Your task to perform on an android device: toggle data saver in the chrome app Image 0: 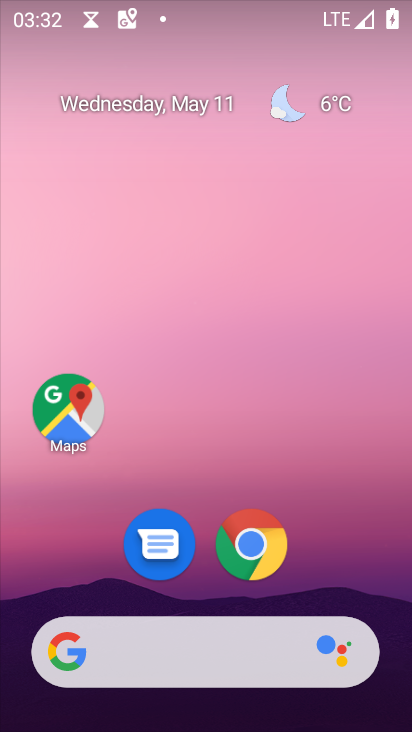
Step 0: click (259, 547)
Your task to perform on an android device: toggle data saver in the chrome app Image 1: 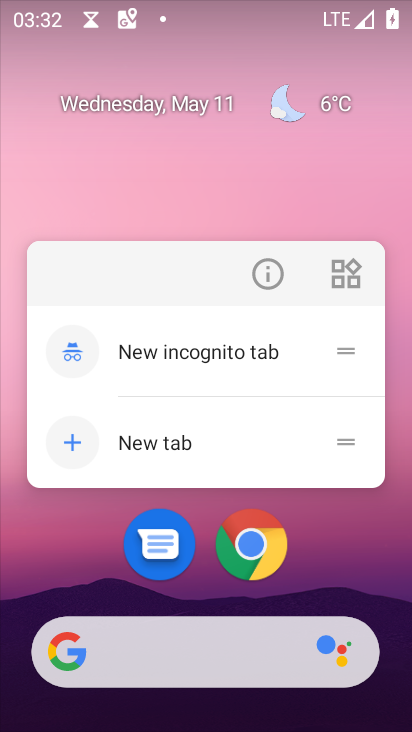
Step 1: click (259, 547)
Your task to perform on an android device: toggle data saver in the chrome app Image 2: 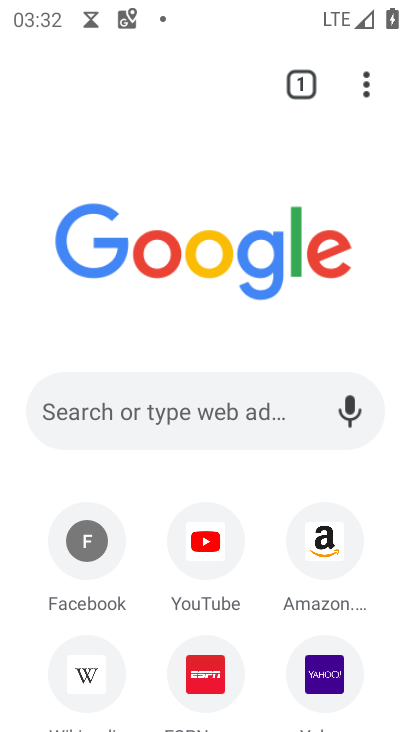
Step 2: click (361, 75)
Your task to perform on an android device: toggle data saver in the chrome app Image 3: 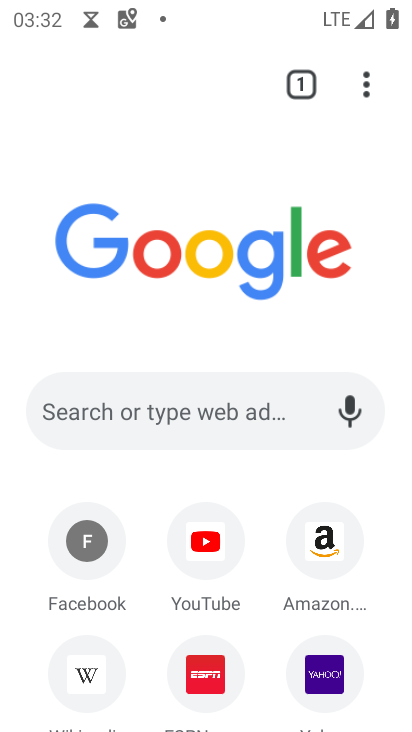
Step 3: click (367, 80)
Your task to perform on an android device: toggle data saver in the chrome app Image 4: 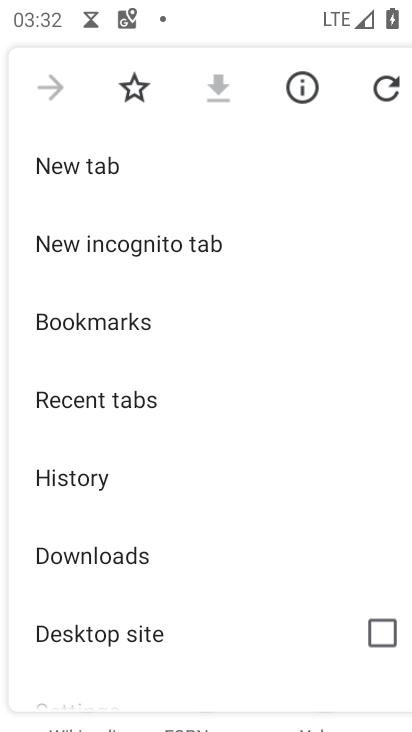
Step 4: drag from (182, 590) to (212, 224)
Your task to perform on an android device: toggle data saver in the chrome app Image 5: 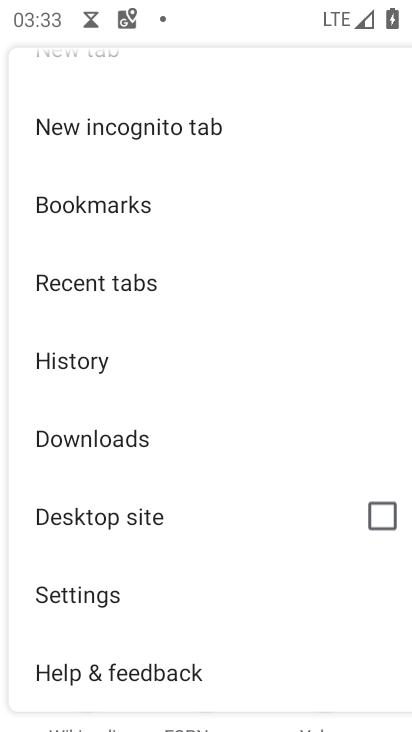
Step 5: click (92, 593)
Your task to perform on an android device: toggle data saver in the chrome app Image 6: 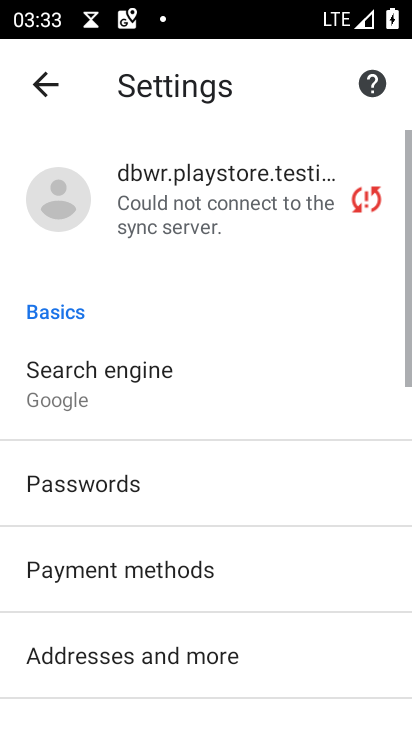
Step 6: drag from (192, 614) to (262, 270)
Your task to perform on an android device: toggle data saver in the chrome app Image 7: 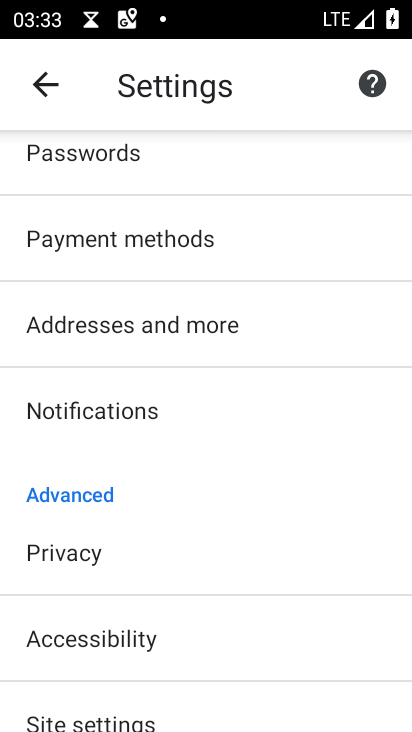
Step 7: drag from (238, 642) to (308, 288)
Your task to perform on an android device: toggle data saver in the chrome app Image 8: 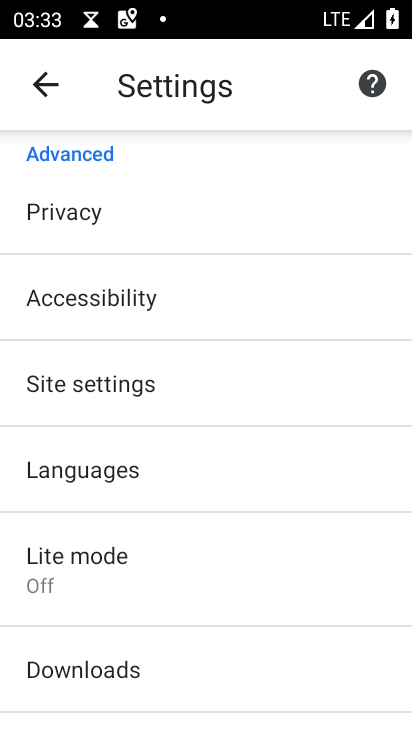
Step 8: click (211, 584)
Your task to perform on an android device: toggle data saver in the chrome app Image 9: 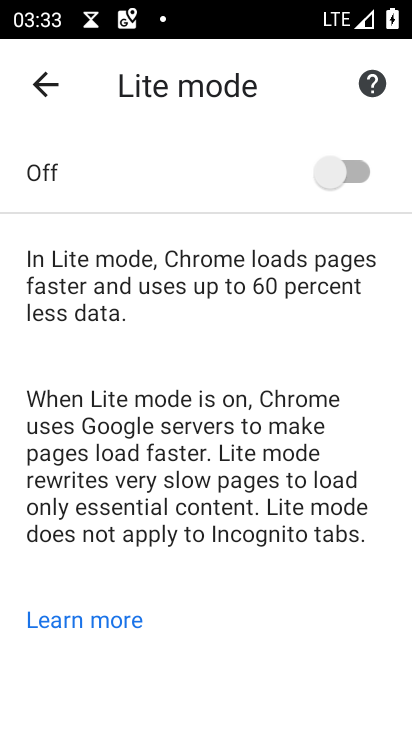
Step 9: click (353, 184)
Your task to perform on an android device: toggle data saver in the chrome app Image 10: 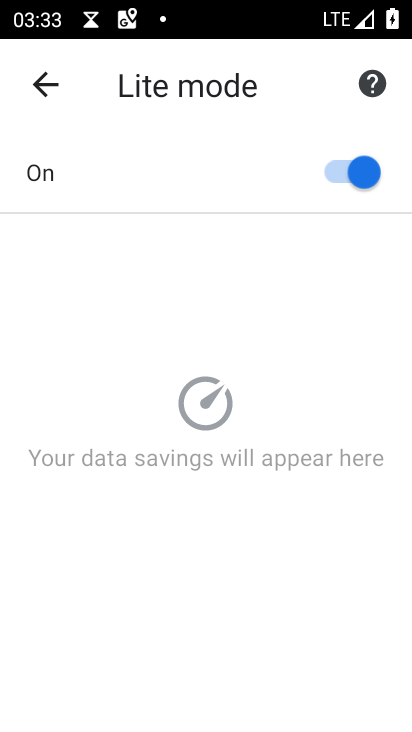
Step 10: task complete